Your task to perform on an android device: set an alarm Image 0: 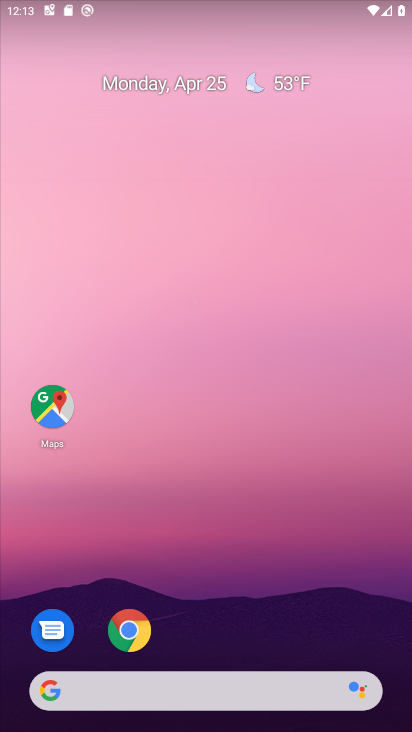
Step 0: drag from (227, 583) to (213, 123)
Your task to perform on an android device: set an alarm Image 1: 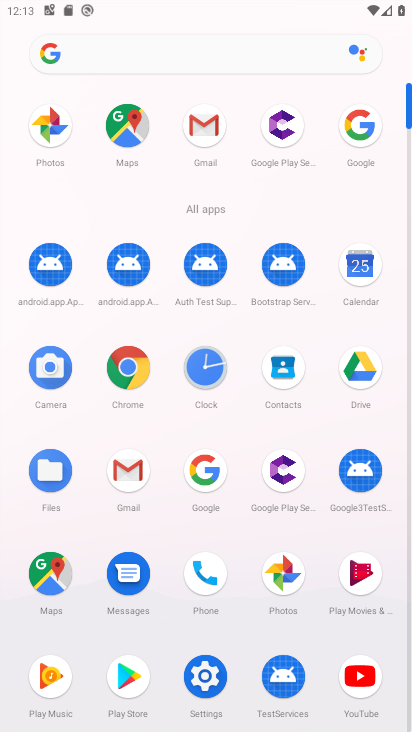
Step 1: click (212, 372)
Your task to perform on an android device: set an alarm Image 2: 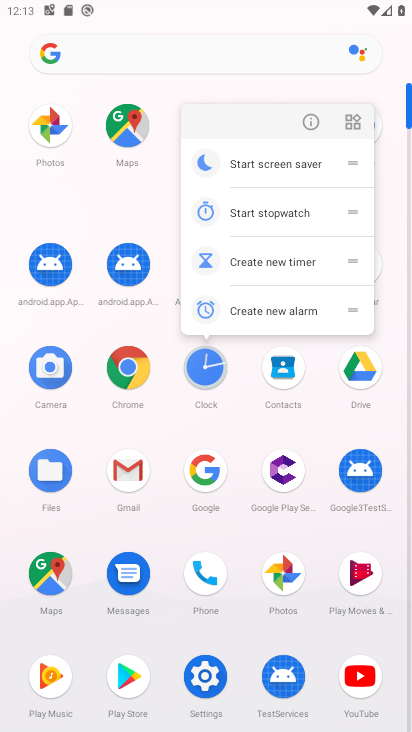
Step 2: click (310, 110)
Your task to perform on an android device: set an alarm Image 3: 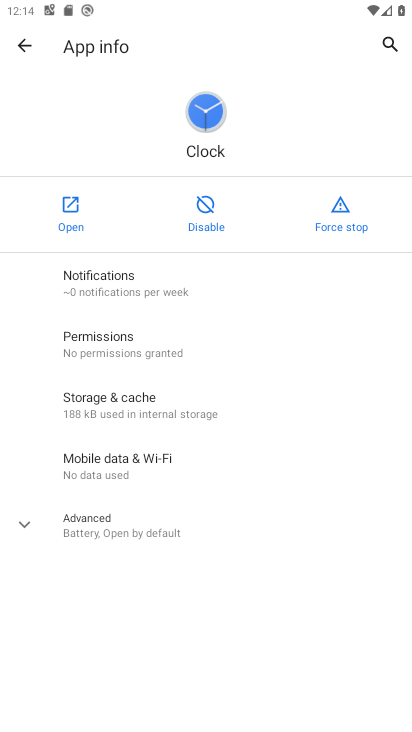
Step 3: click (62, 208)
Your task to perform on an android device: set an alarm Image 4: 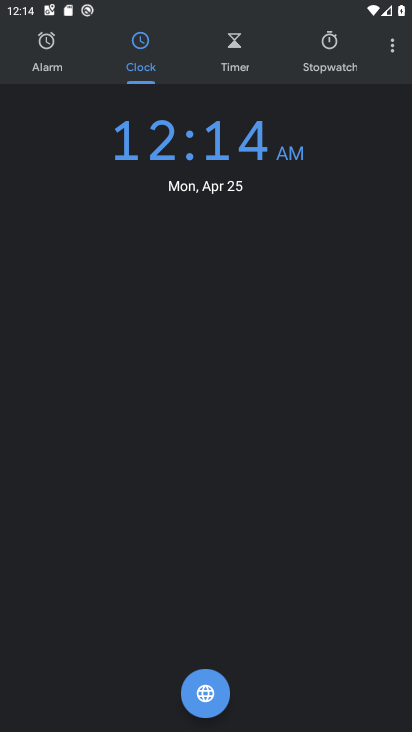
Step 4: click (59, 60)
Your task to perform on an android device: set an alarm Image 5: 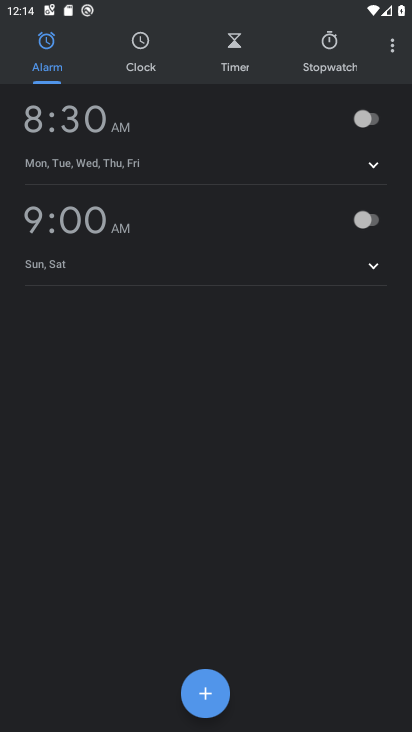
Step 5: click (373, 124)
Your task to perform on an android device: set an alarm Image 6: 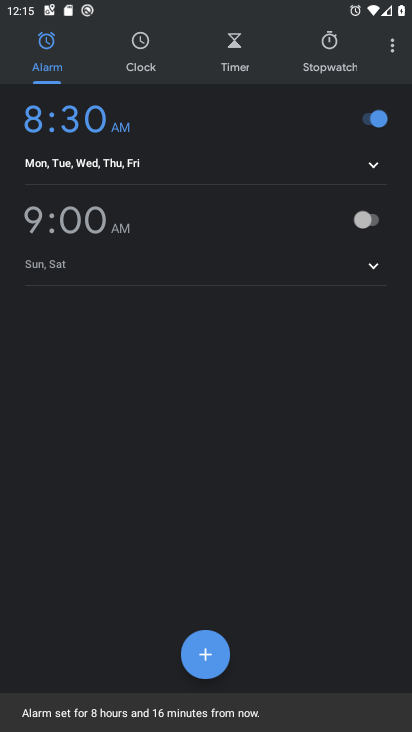
Step 6: task complete